Your task to perform on an android device: turn on bluetooth scan Image 0: 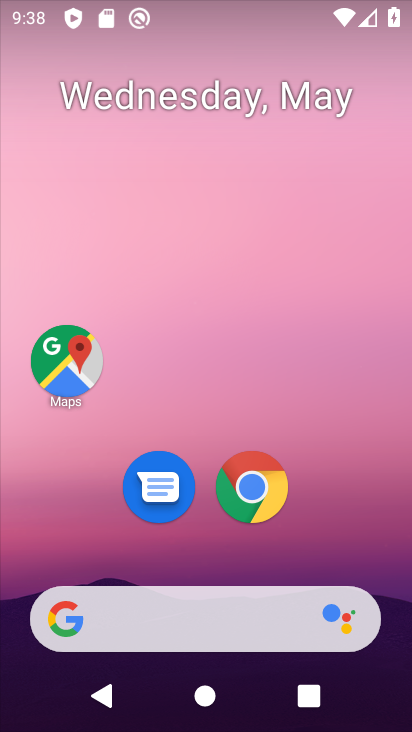
Step 0: drag from (228, 628) to (151, 113)
Your task to perform on an android device: turn on bluetooth scan Image 1: 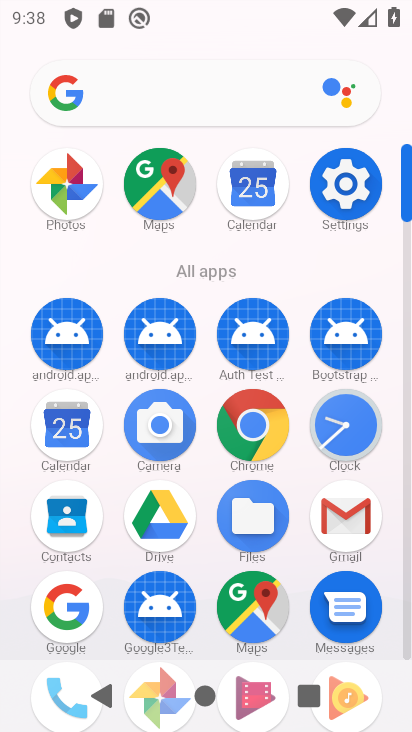
Step 1: click (349, 196)
Your task to perform on an android device: turn on bluetooth scan Image 2: 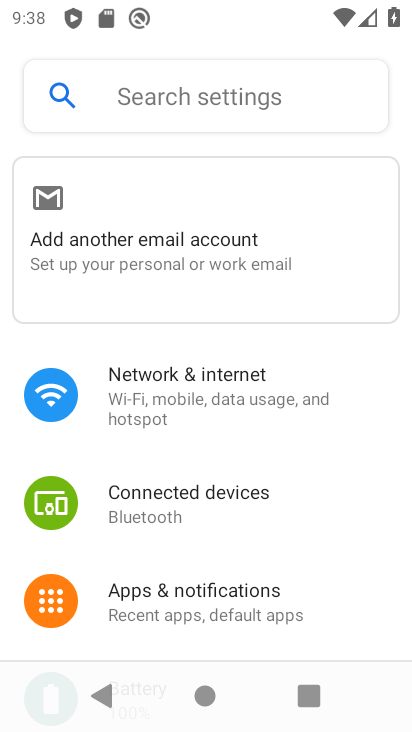
Step 2: click (206, 79)
Your task to perform on an android device: turn on bluetooth scan Image 3: 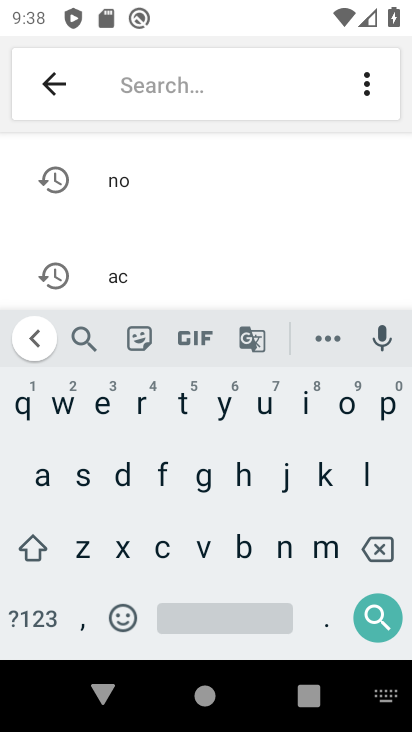
Step 3: click (362, 475)
Your task to perform on an android device: turn on bluetooth scan Image 4: 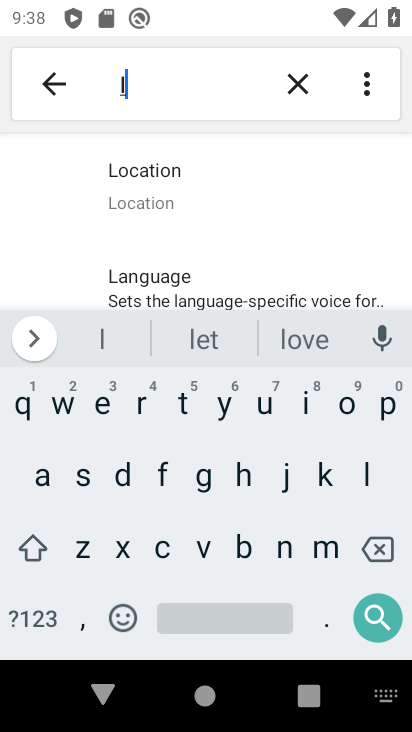
Step 4: click (169, 200)
Your task to perform on an android device: turn on bluetooth scan Image 5: 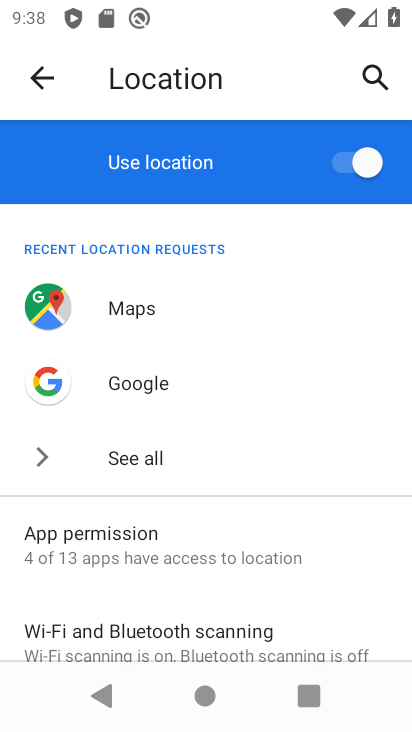
Step 5: click (213, 631)
Your task to perform on an android device: turn on bluetooth scan Image 6: 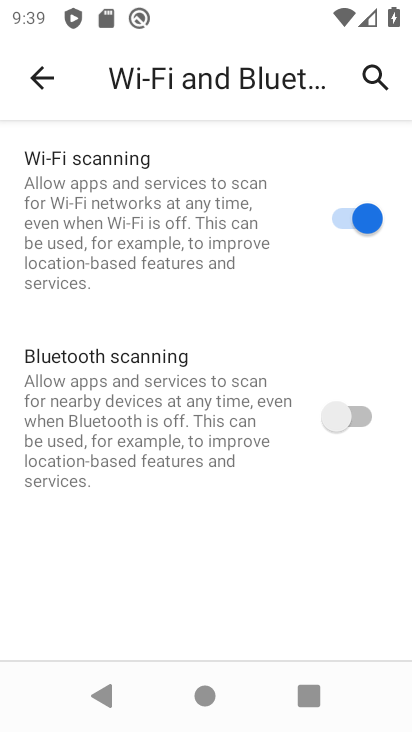
Step 6: click (352, 406)
Your task to perform on an android device: turn on bluetooth scan Image 7: 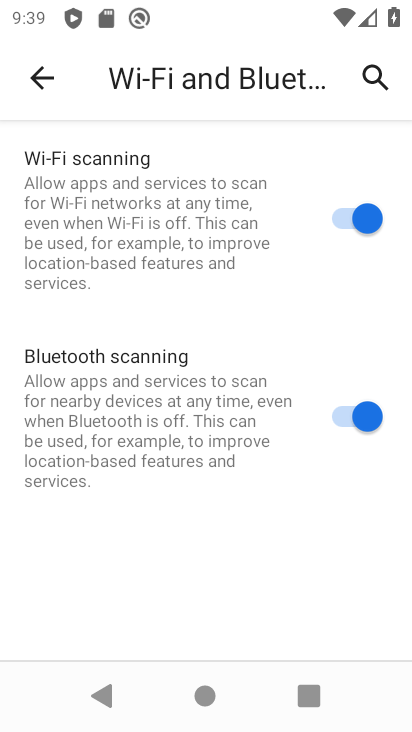
Step 7: task complete